Your task to perform on an android device: Open Google Chrome Image 0: 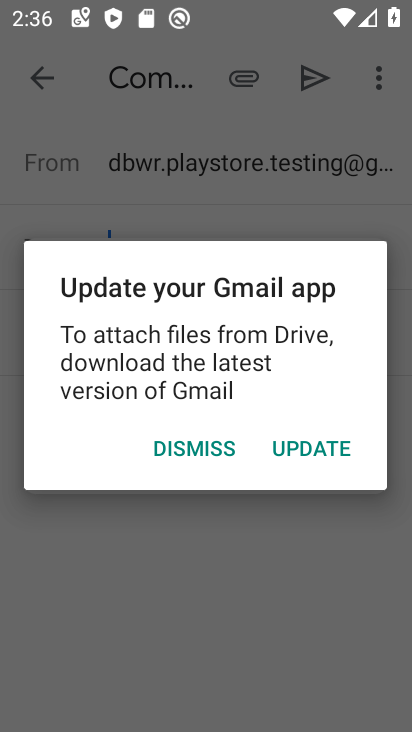
Step 0: press home button
Your task to perform on an android device: Open Google Chrome Image 1: 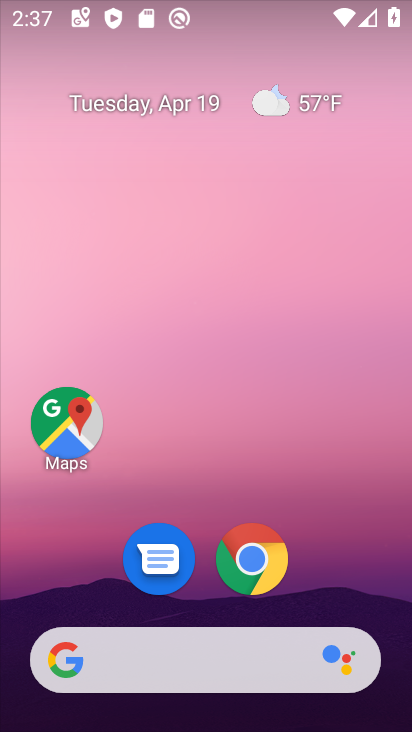
Step 1: click (251, 542)
Your task to perform on an android device: Open Google Chrome Image 2: 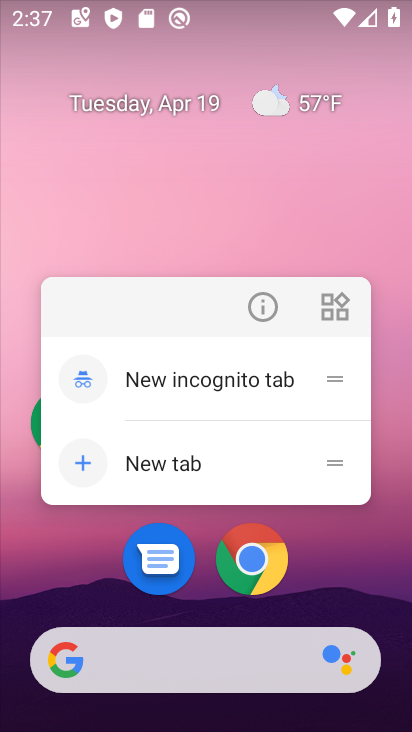
Step 2: click (215, 595)
Your task to perform on an android device: Open Google Chrome Image 3: 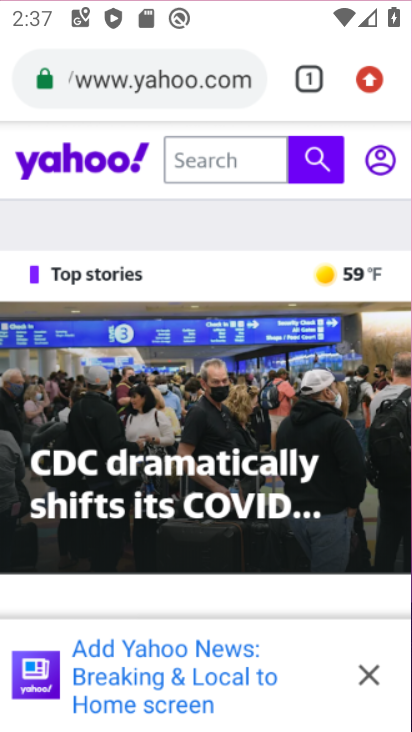
Step 3: drag from (320, 604) to (327, 99)
Your task to perform on an android device: Open Google Chrome Image 4: 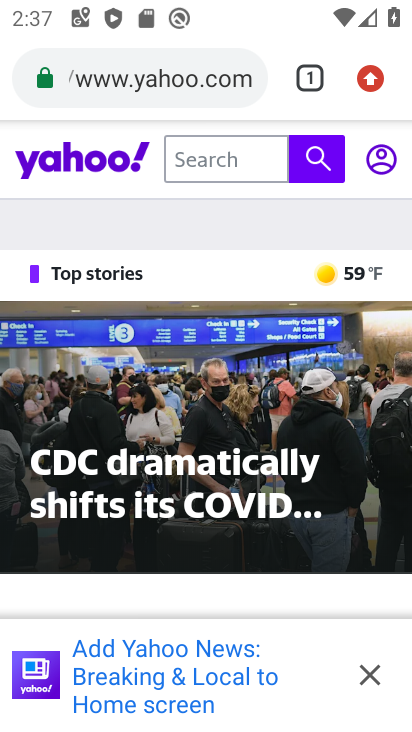
Step 4: click (313, 72)
Your task to perform on an android device: Open Google Chrome Image 5: 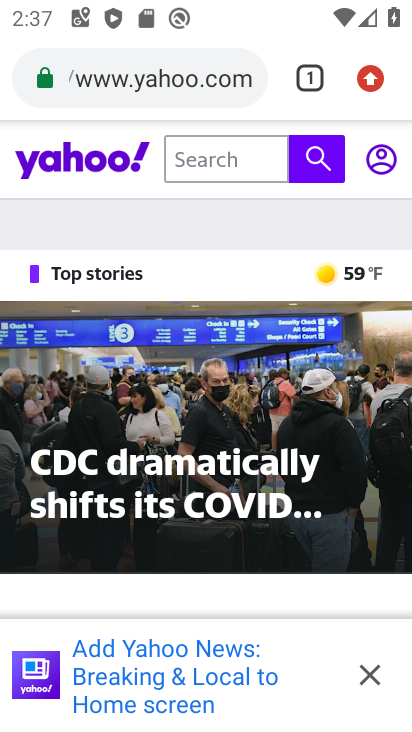
Step 5: click (303, 73)
Your task to perform on an android device: Open Google Chrome Image 6: 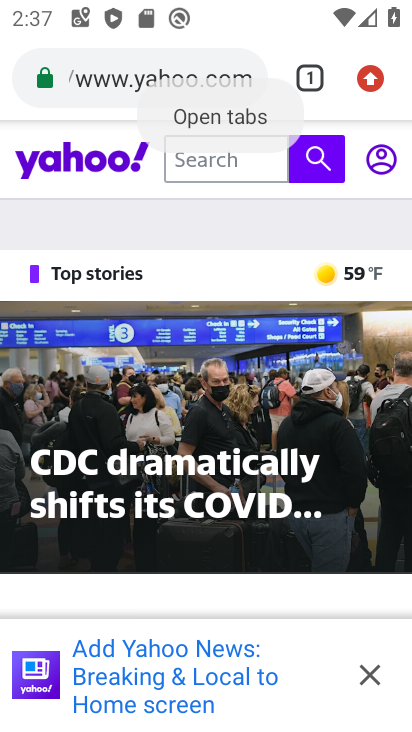
Step 6: click (309, 70)
Your task to perform on an android device: Open Google Chrome Image 7: 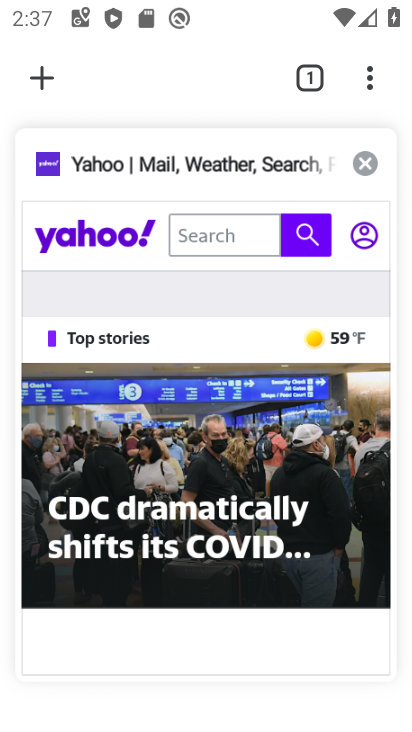
Step 7: click (44, 83)
Your task to perform on an android device: Open Google Chrome Image 8: 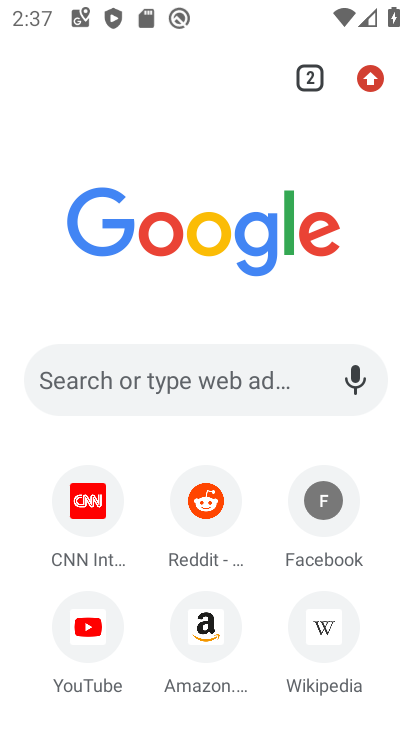
Step 8: task complete